Your task to perform on an android device: Open ESPN.com Image 0: 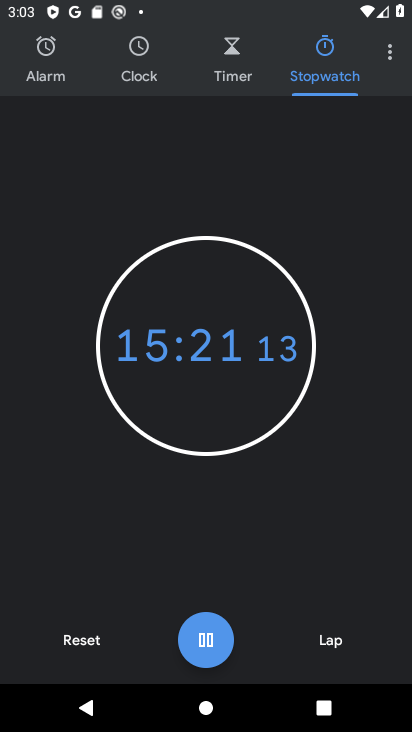
Step 0: press home button
Your task to perform on an android device: Open ESPN.com Image 1: 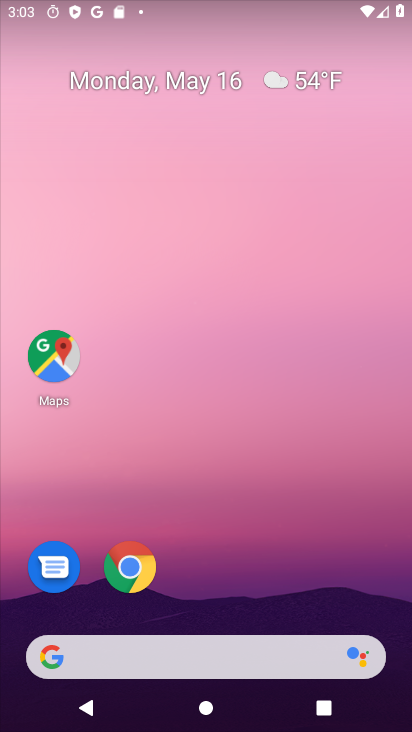
Step 1: drag from (231, 521) to (223, 170)
Your task to perform on an android device: Open ESPN.com Image 2: 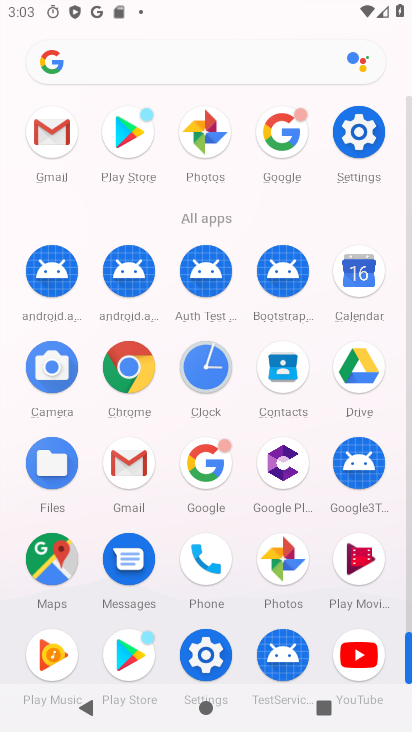
Step 2: click (130, 366)
Your task to perform on an android device: Open ESPN.com Image 3: 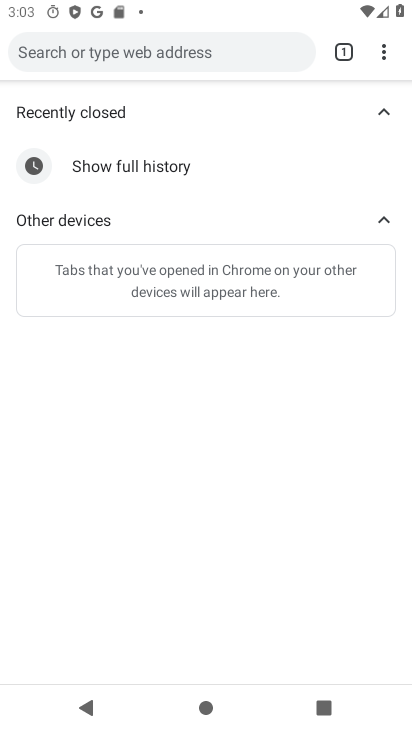
Step 3: click (247, 48)
Your task to perform on an android device: Open ESPN.com Image 4: 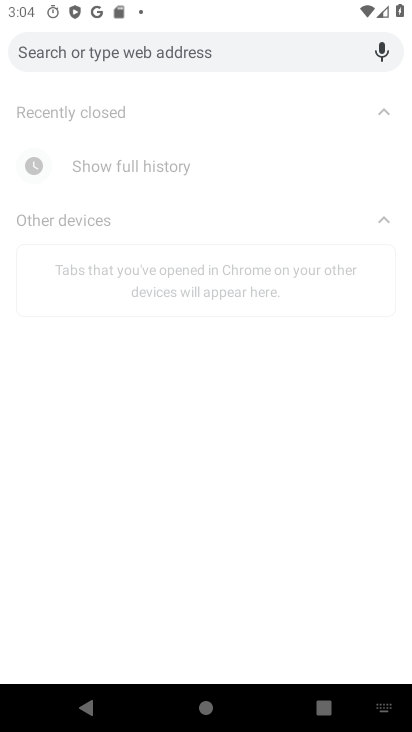
Step 4: type "ESPN.com"
Your task to perform on an android device: Open ESPN.com Image 5: 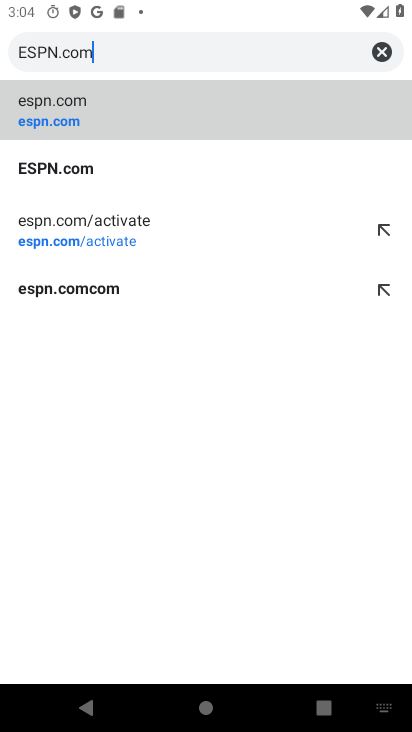
Step 5: click (65, 175)
Your task to perform on an android device: Open ESPN.com Image 6: 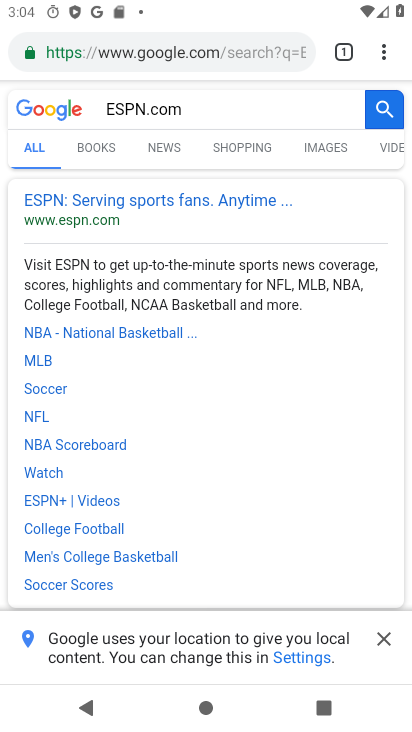
Step 6: click (123, 216)
Your task to perform on an android device: Open ESPN.com Image 7: 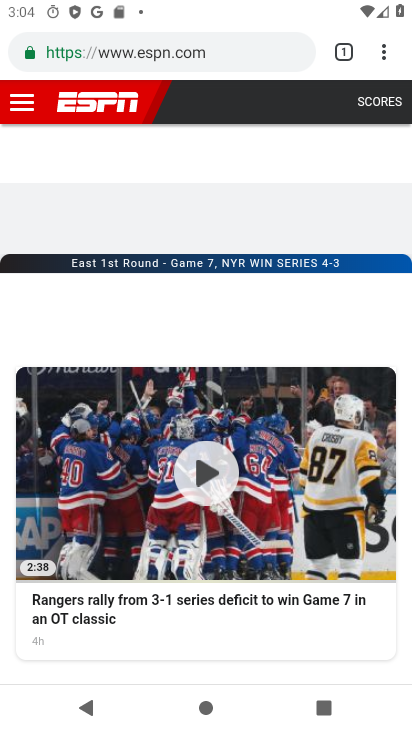
Step 7: task complete